Your task to perform on an android device: open app "DoorDash - Dasher" (install if not already installed), go to login, and select forgot password Image 0: 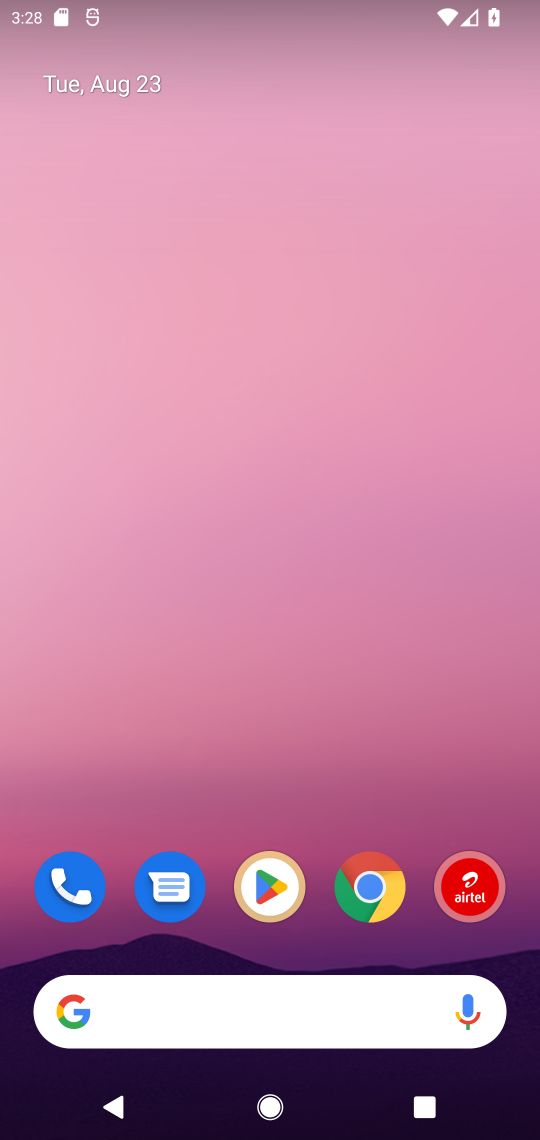
Step 0: click (273, 881)
Your task to perform on an android device: open app "DoorDash - Dasher" (install if not already installed), go to login, and select forgot password Image 1: 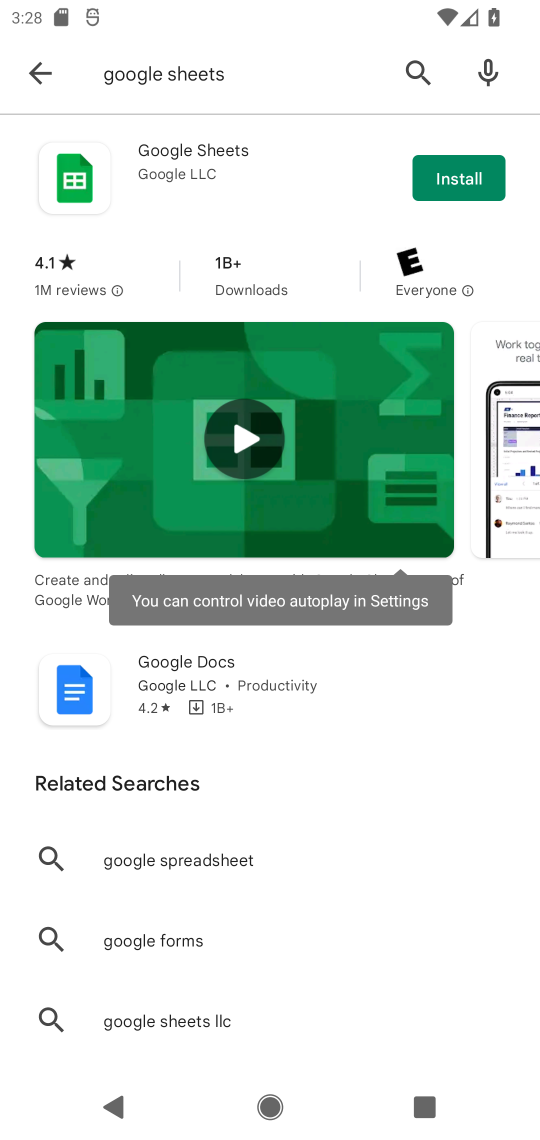
Step 1: click (46, 75)
Your task to perform on an android device: open app "DoorDash - Dasher" (install if not already installed), go to login, and select forgot password Image 2: 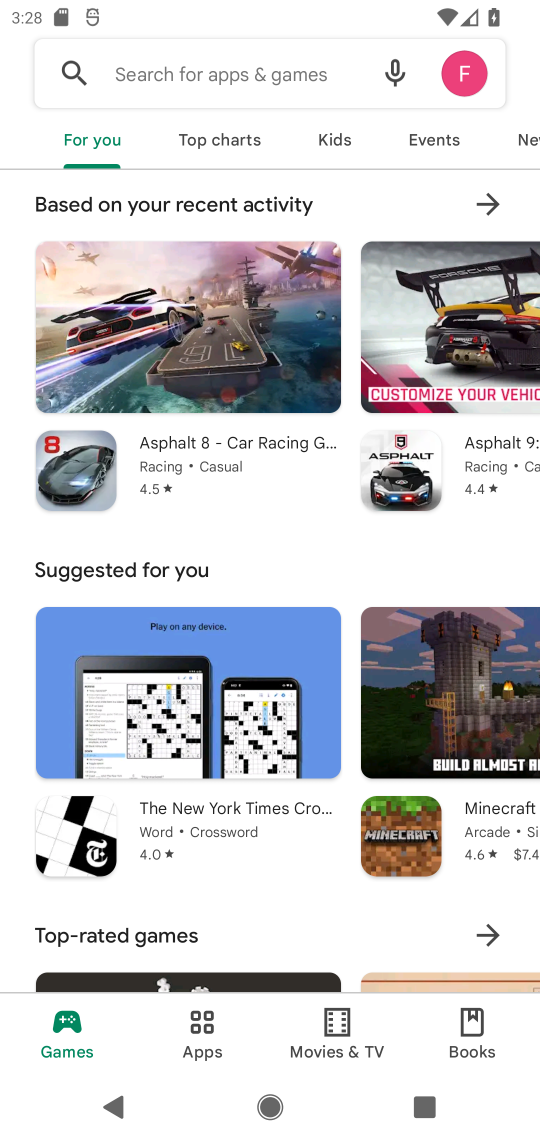
Step 2: click (271, 75)
Your task to perform on an android device: open app "DoorDash - Dasher" (install if not already installed), go to login, and select forgot password Image 3: 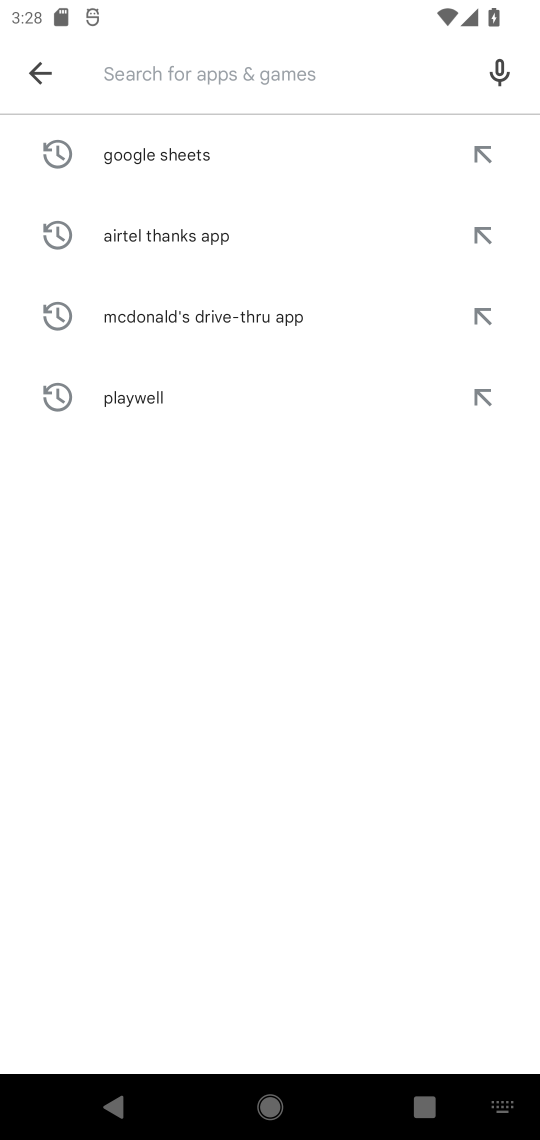
Step 3: type "DoorDash - Dasher"
Your task to perform on an android device: open app "DoorDash - Dasher" (install if not already installed), go to login, and select forgot password Image 4: 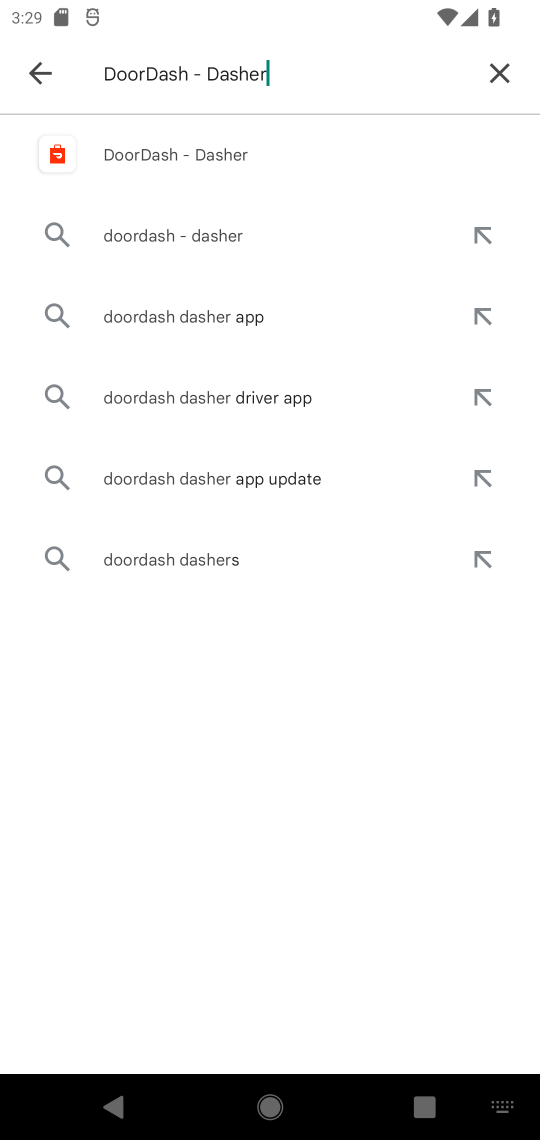
Step 4: click (223, 157)
Your task to perform on an android device: open app "DoorDash - Dasher" (install if not already installed), go to login, and select forgot password Image 5: 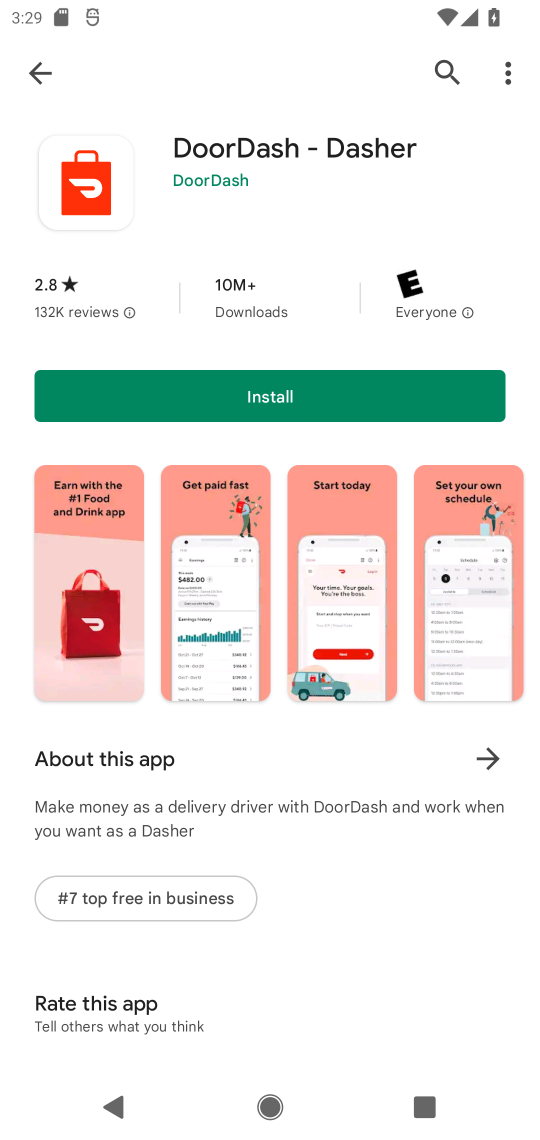
Step 5: click (288, 381)
Your task to perform on an android device: open app "DoorDash - Dasher" (install if not already installed), go to login, and select forgot password Image 6: 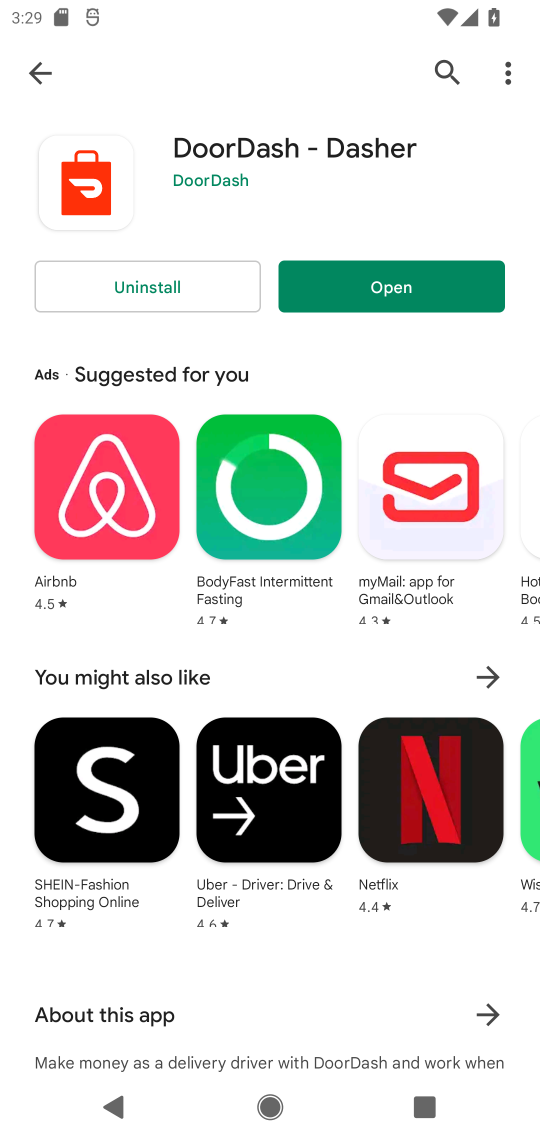
Step 6: click (384, 315)
Your task to perform on an android device: open app "DoorDash - Dasher" (install if not already installed), go to login, and select forgot password Image 7: 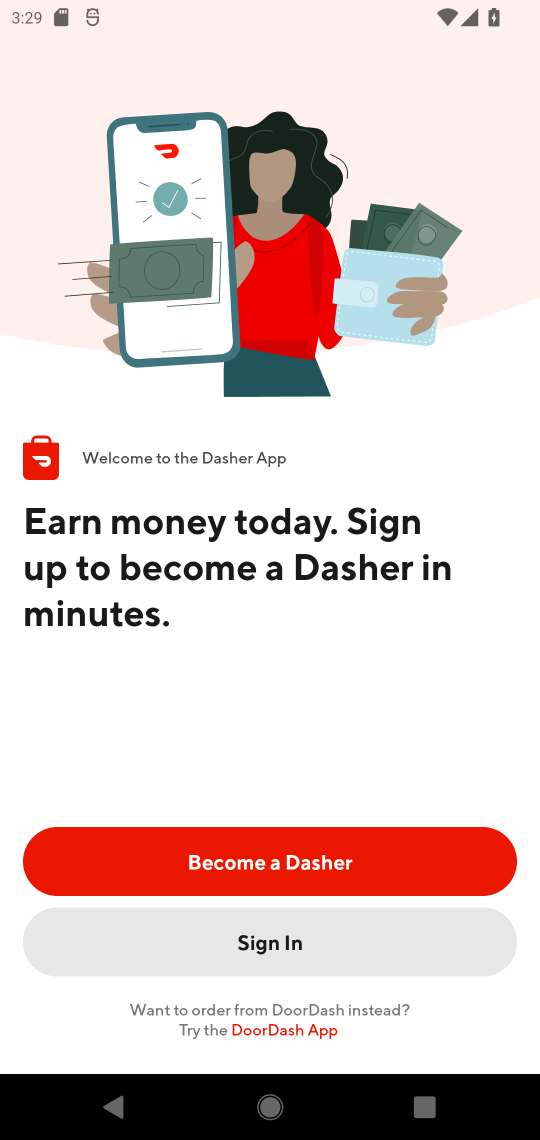
Step 7: task complete